Your task to perform on an android device: check data usage Image 0: 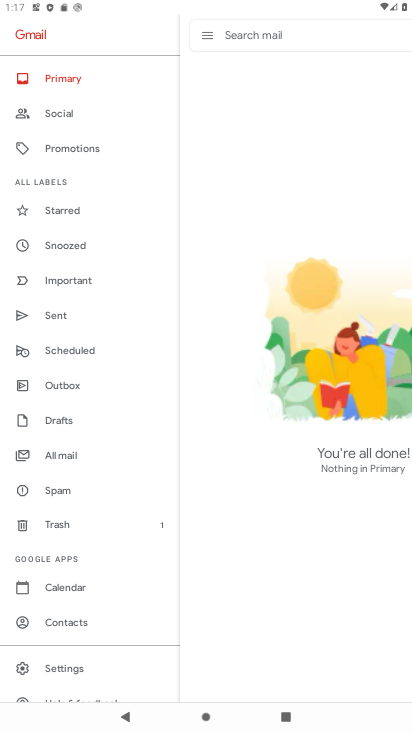
Step 0: press home button
Your task to perform on an android device: check data usage Image 1: 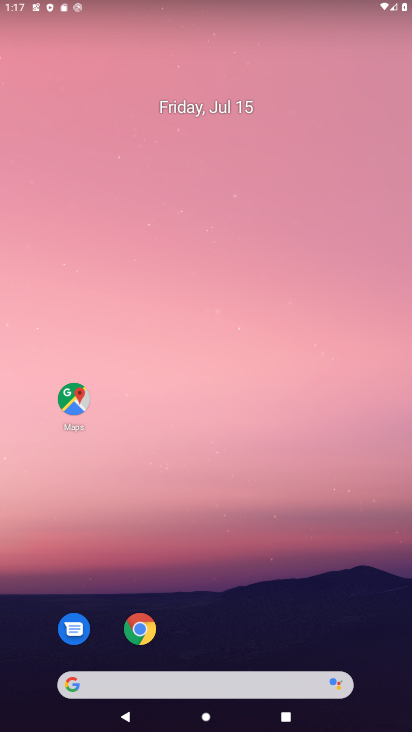
Step 1: drag from (230, 550) to (122, 91)
Your task to perform on an android device: check data usage Image 2: 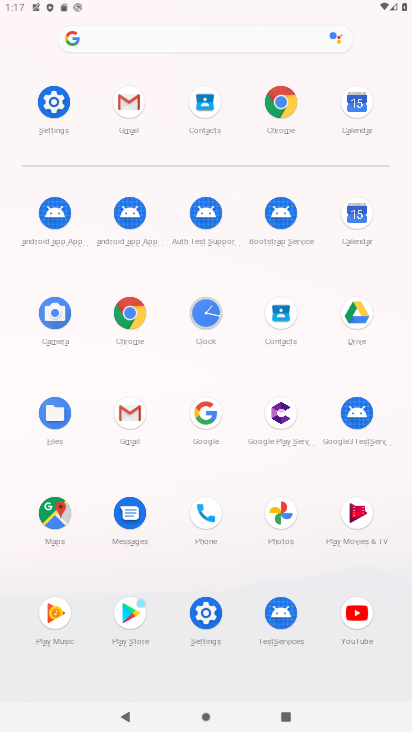
Step 2: click (57, 102)
Your task to perform on an android device: check data usage Image 3: 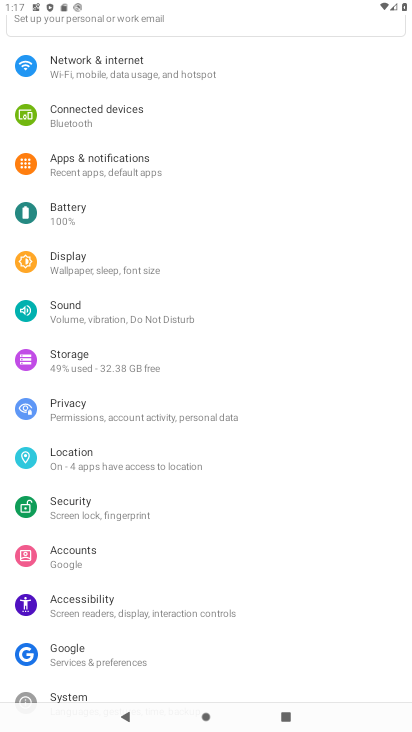
Step 3: click (108, 79)
Your task to perform on an android device: check data usage Image 4: 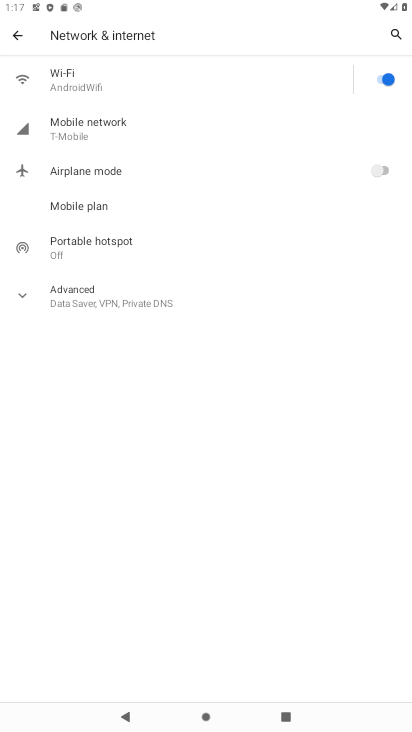
Step 4: click (112, 124)
Your task to perform on an android device: check data usage Image 5: 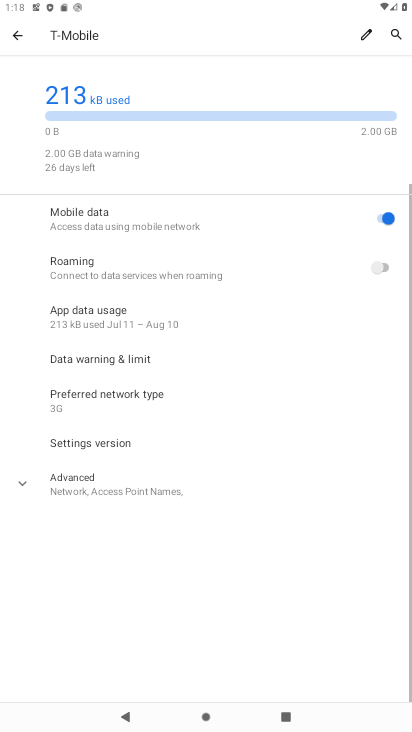
Step 5: task complete